Your task to perform on an android device: Go to display settings Image 0: 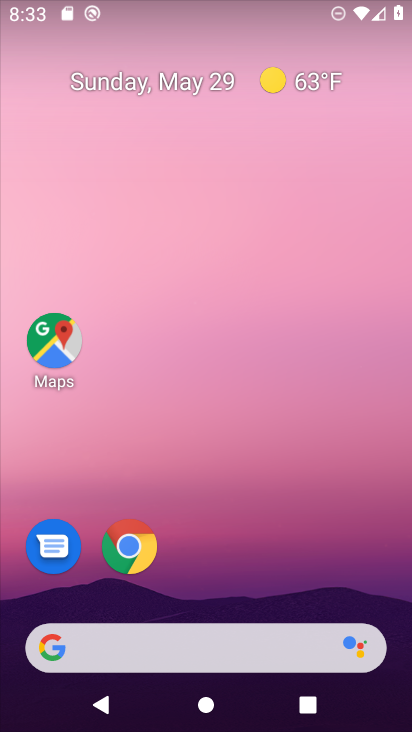
Step 0: drag from (237, 2) to (328, 0)
Your task to perform on an android device: Go to display settings Image 1: 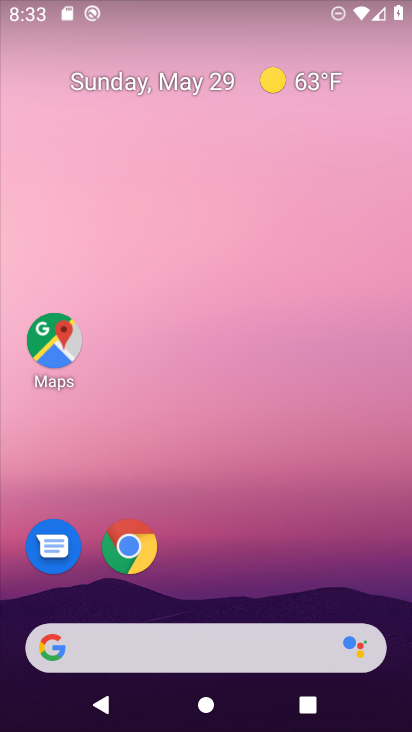
Step 1: drag from (192, 652) to (372, 21)
Your task to perform on an android device: Go to display settings Image 2: 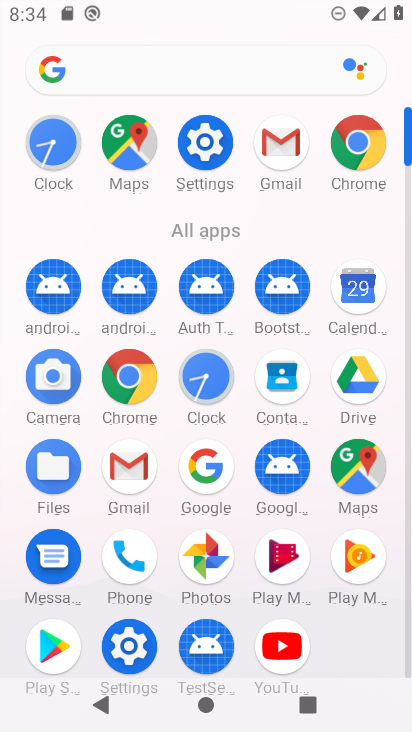
Step 2: click (198, 135)
Your task to perform on an android device: Go to display settings Image 3: 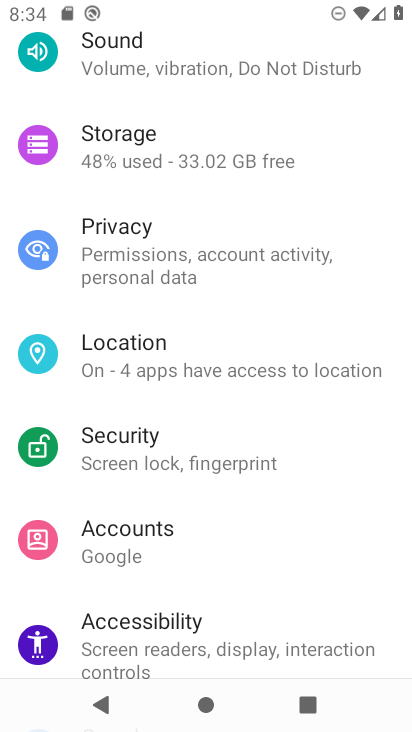
Step 3: drag from (316, 95) to (269, 598)
Your task to perform on an android device: Go to display settings Image 4: 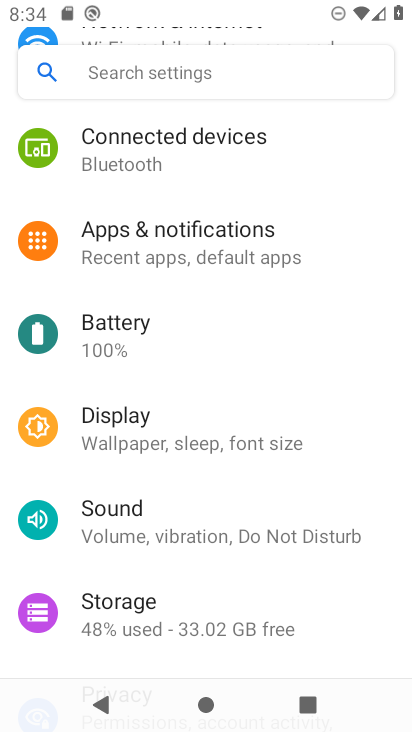
Step 4: click (122, 418)
Your task to perform on an android device: Go to display settings Image 5: 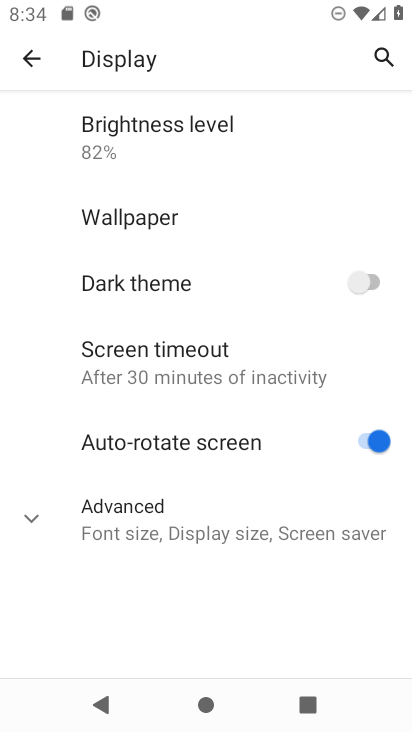
Step 5: task complete